Your task to perform on an android device: snooze an email in the gmail app Image 0: 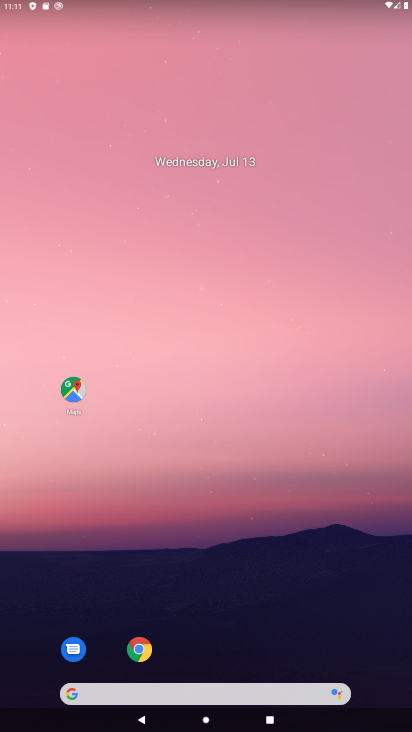
Step 0: drag from (218, 636) to (219, 276)
Your task to perform on an android device: snooze an email in the gmail app Image 1: 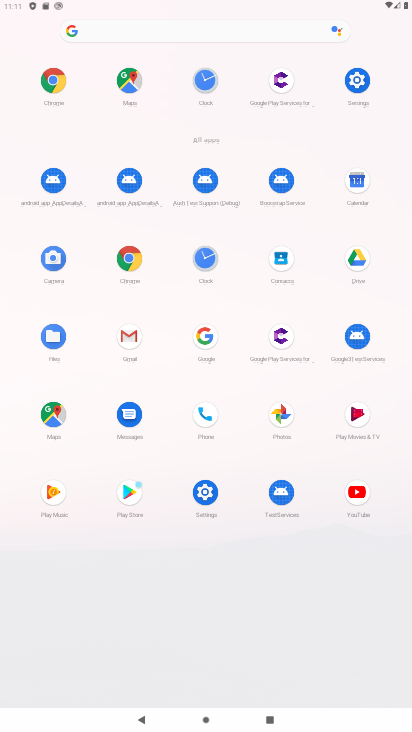
Step 1: click (134, 346)
Your task to perform on an android device: snooze an email in the gmail app Image 2: 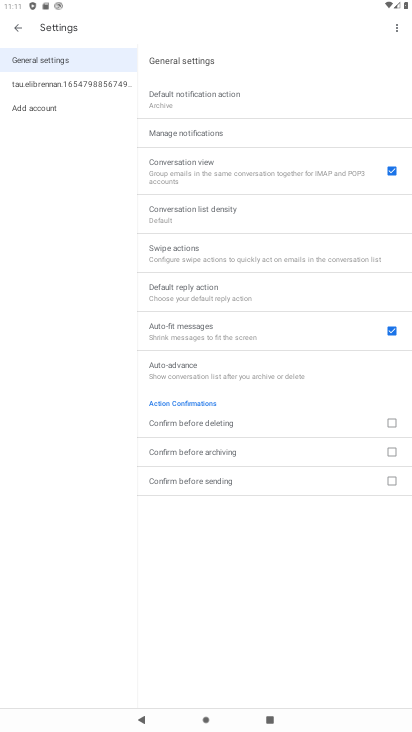
Step 2: click (16, 25)
Your task to perform on an android device: snooze an email in the gmail app Image 3: 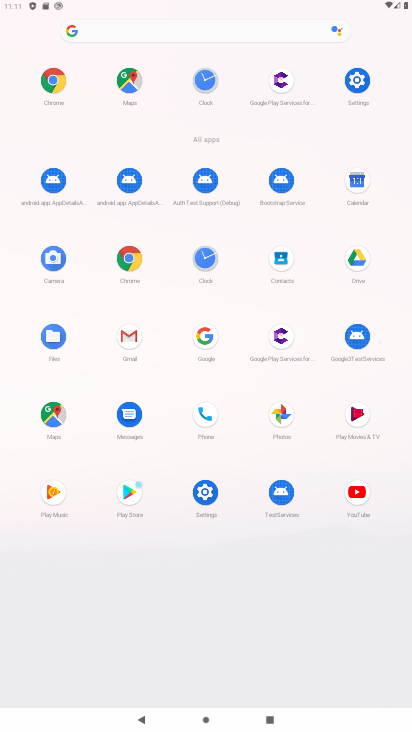
Step 3: click (127, 328)
Your task to perform on an android device: snooze an email in the gmail app Image 4: 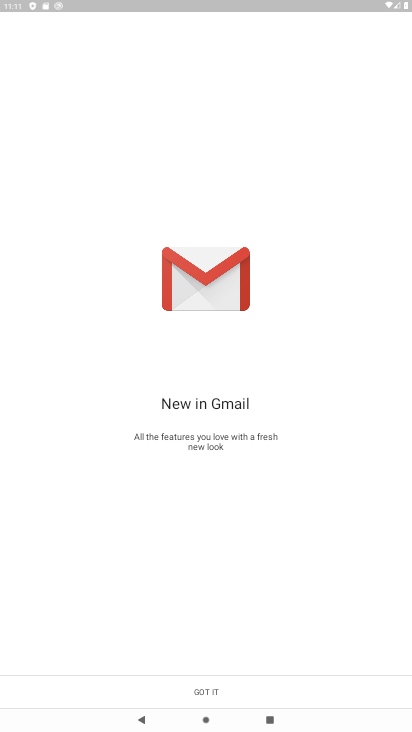
Step 4: click (218, 704)
Your task to perform on an android device: snooze an email in the gmail app Image 5: 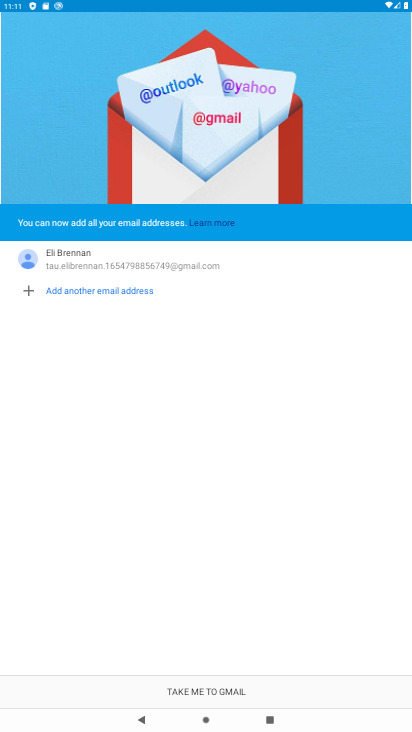
Step 5: click (223, 687)
Your task to perform on an android device: snooze an email in the gmail app Image 6: 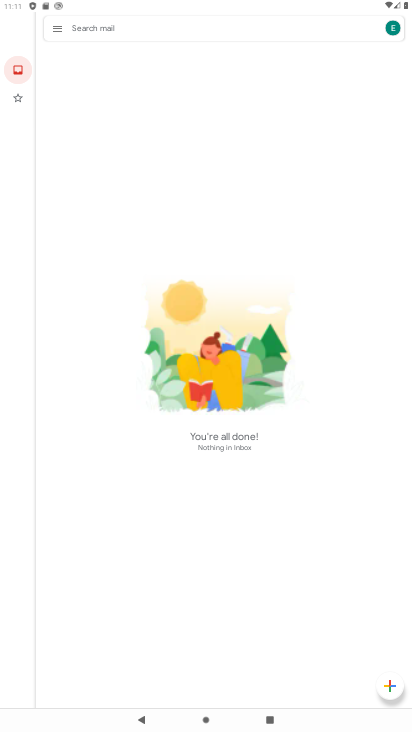
Step 6: task complete